Your task to perform on an android device: create a new album in the google photos Image 0: 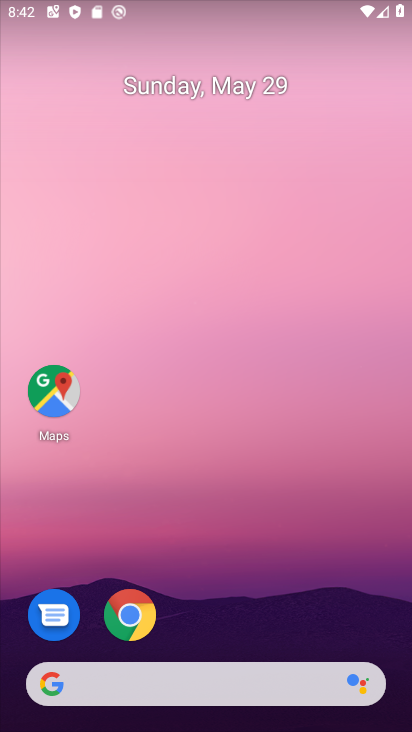
Step 0: drag from (258, 603) to (294, 0)
Your task to perform on an android device: create a new album in the google photos Image 1: 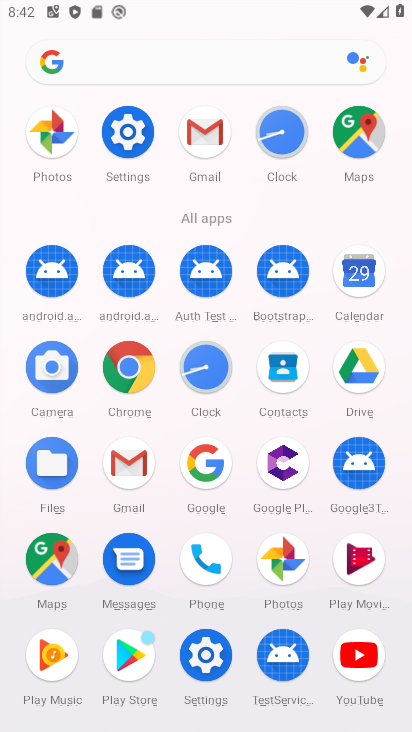
Step 1: click (45, 142)
Your task to perform on an android device: create a new album in the google photos Image 2: 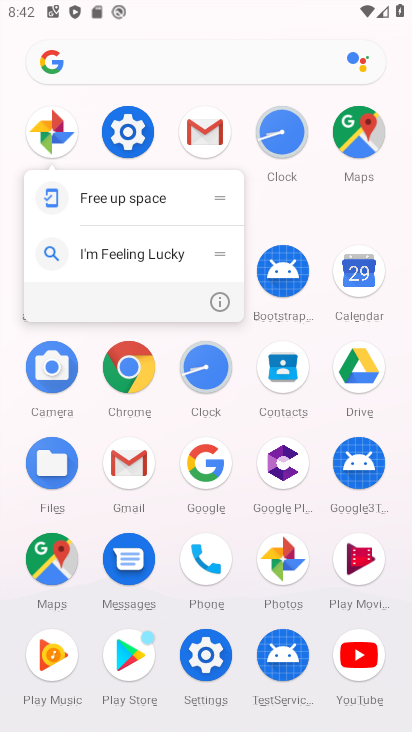
Step 2: click (51, 131)
Your task to perform on an android device: create a new album in the google photos Image 3: 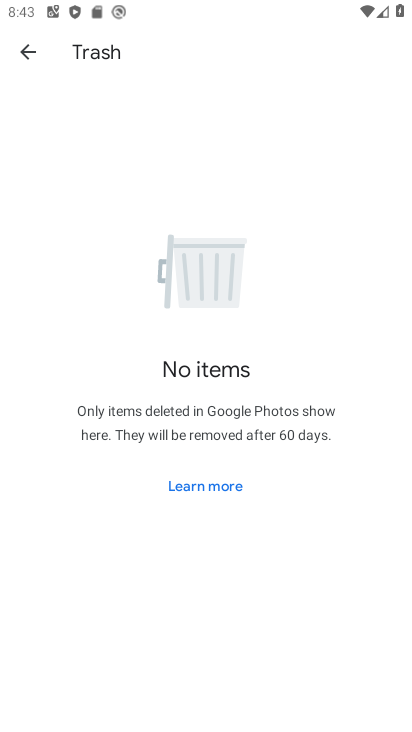
Step 3: click (22, 46)
Your task to perform on an android device: create a new album in the google photos Image 4: 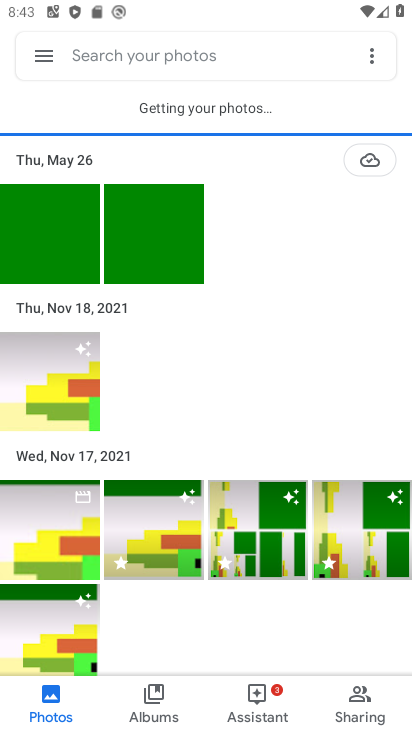
Step 4: click (157, 699)
Your task to perform on an android device: create a new album in the google photos Image 5: 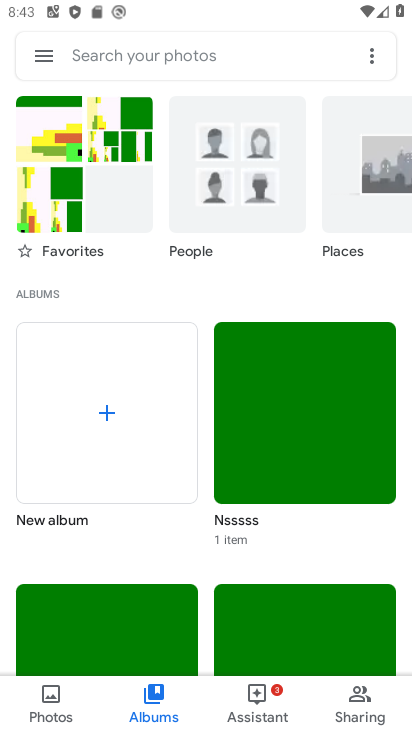
Step 5: click (100, 409)
Your task to perform on an android device: create a new album in the google photos Image 6: 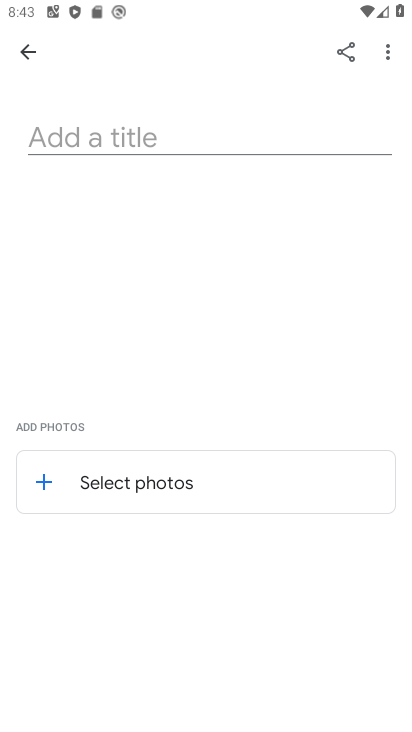
Step 6: click (119, 134)
Your task to perform on an android device: create a new album in the google photos Image 7: 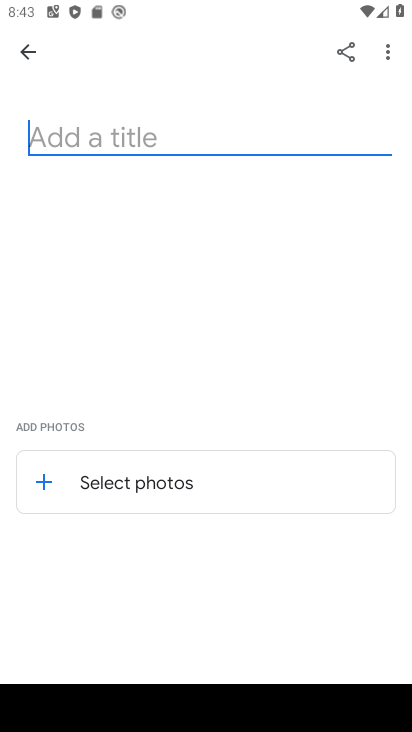
Step 7: type "uytrewa"
Your task to perform on an android device: create a new album in the google photos Image 8: 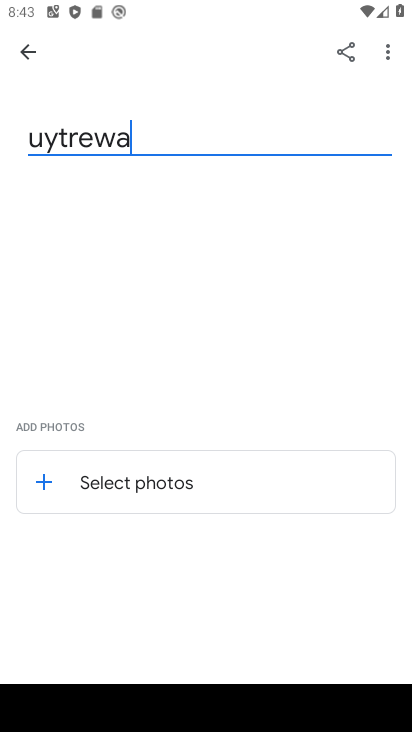
Step 8: click (113, 484)
Your task to perform on an android device: create a new album in the google photos Image 9: 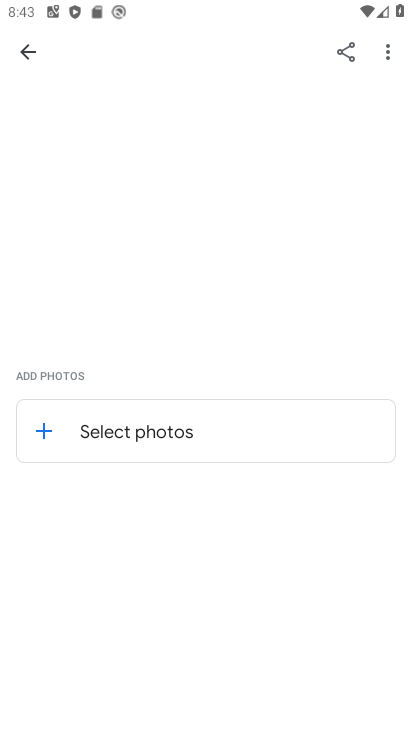
Step 9: click (50, 429)
Your task to perform on an android device: create a new album in the google photos Image 10: 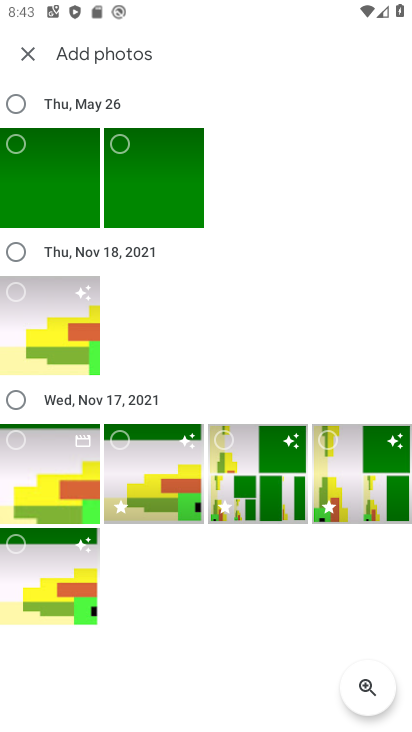
Step 10: click (169, 144)
Your task to perform on an android device: create a new album in the google photos Image 11: 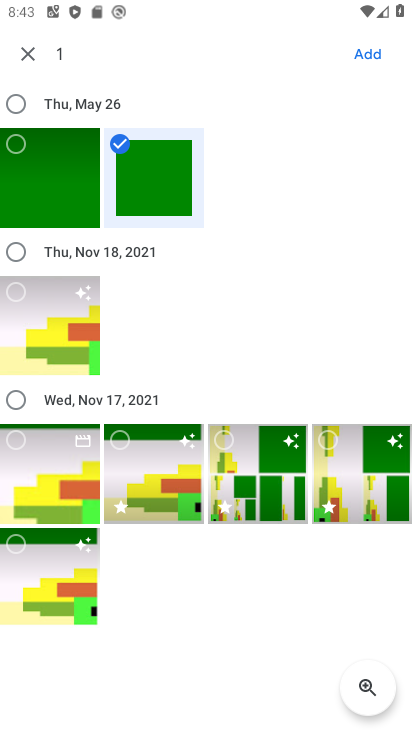
Step 11: click (370, 54)
Your task to perform on an android device: create a new album in the google photos Image 12: 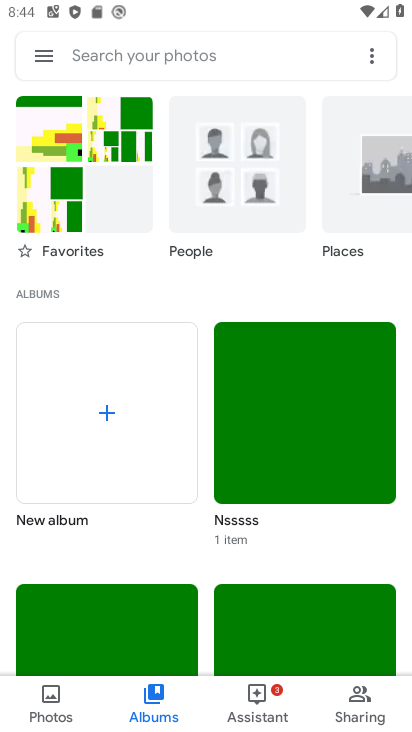
Step 12: task complete